Your task to perform on an android device: Open settings on Google Maps Image 0: 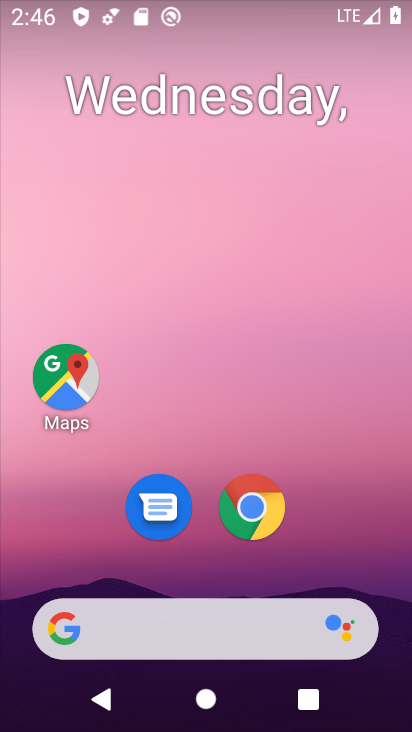
Step 0: click (77, 377)
Your task to perform on an android device: Open settings on Google Maps Image 1: 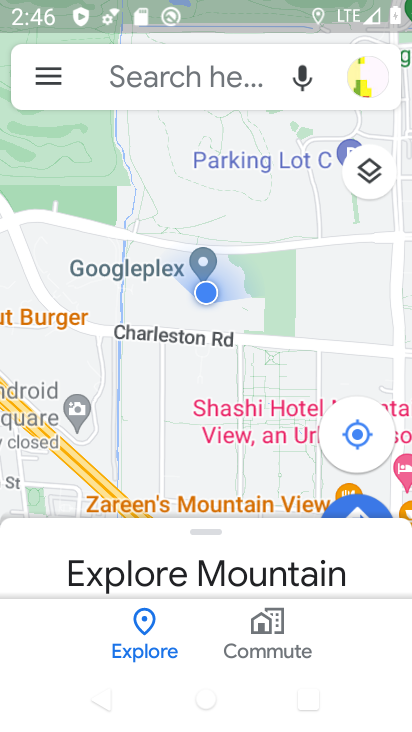
Step 1: click (48, 67)
Your task to perform on an android device: Open settings on Google Maps Image 2: 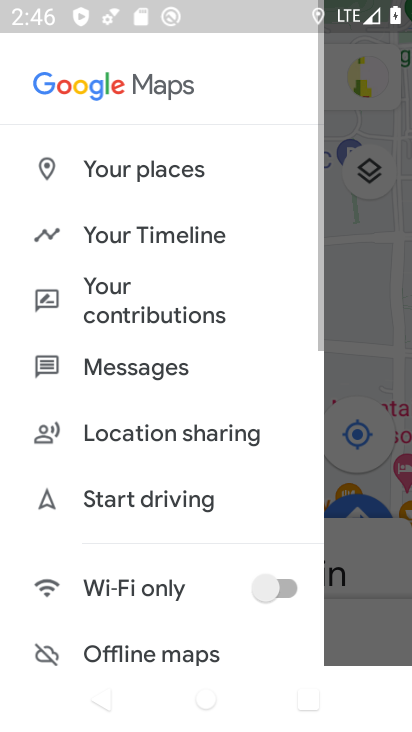
Step 2: drag from (223, 586) to (236, 125)
Your task to perform on an android device: Open settings on Google Maps Image 3: 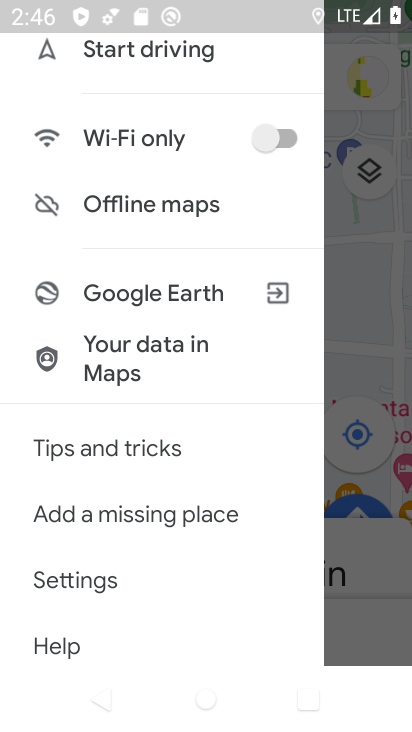
Step 3: click (103, 581)
Your task to perform on an android device: Open settings on Google Maps Image 4: 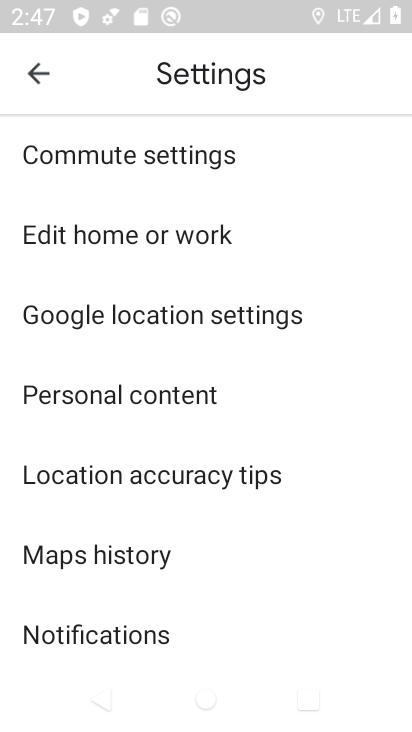
Step 4: task complete